Your task to perform on an android device: turn on bluetooth scan Image 0: 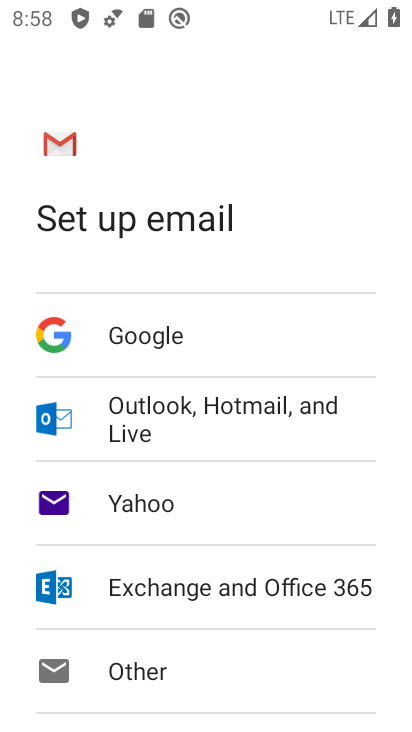
Step 0: press home button
Your task to perform on an android device: turn on bluetooth scan Image 1: 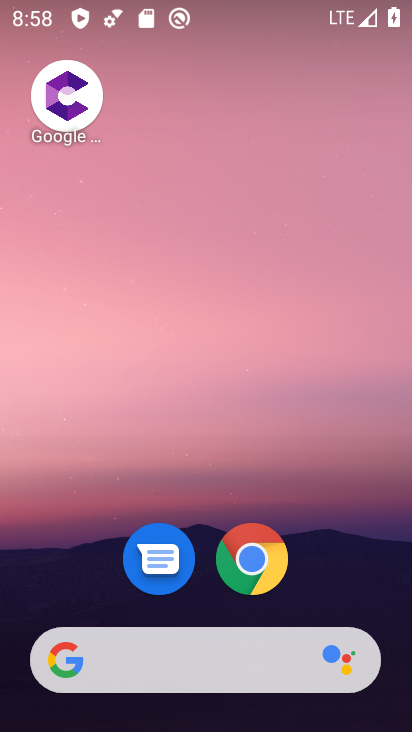
Step 1: drag from (383, 579) to (323, 93)
Your task to perform on an android device: turn on bluetooth scan Image 2: 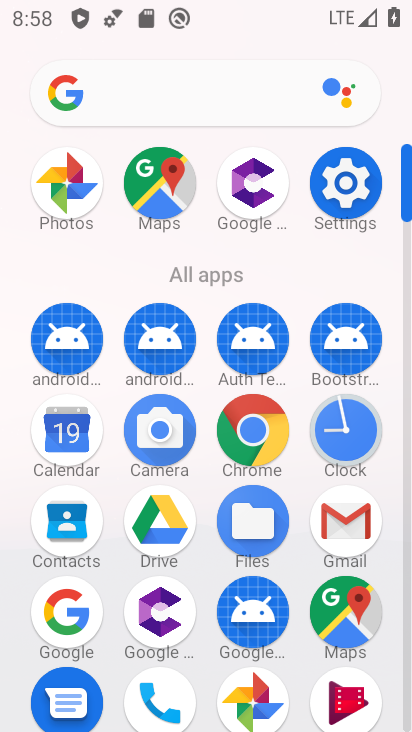
Step 2: click (345, 160)
Your task to perform on an android device: turn on bluetooth scan Image 3: 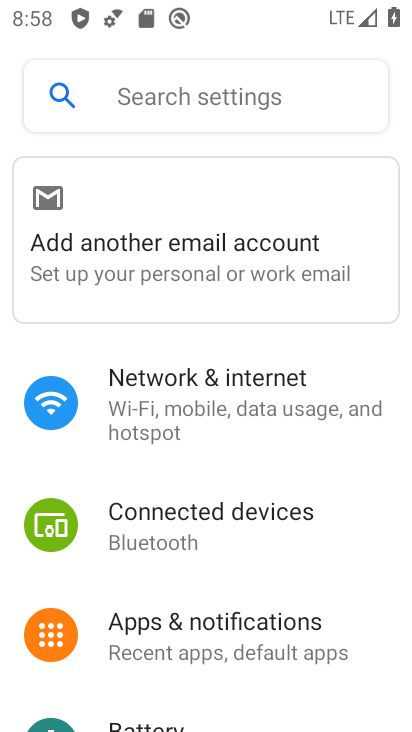
Step 3: drag from (344, 661) to (303, 327)
Your task to perform on an android device: turn on bluetooth scan Image 4: 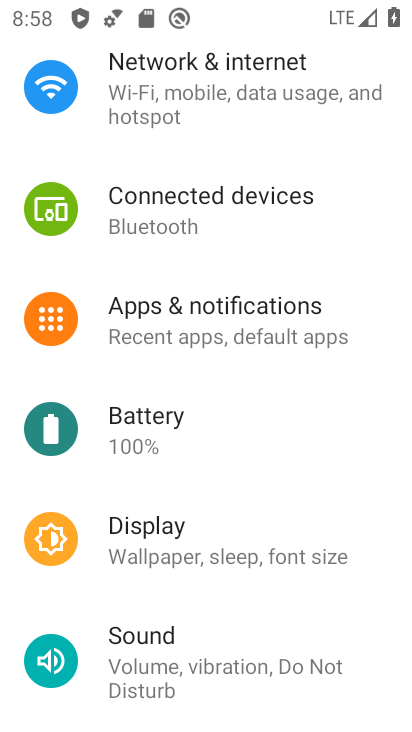
Step 4: drag from (306, 604) to (271, 241)
Your task to perform on an android device: turn on bluetooth scan Image 5: 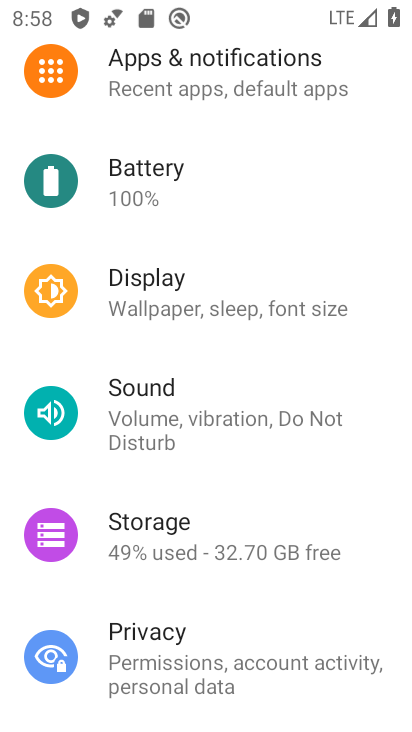
Step 5: drag from (311, 603) to (273, 253)
Your task to perform on an android device: turn on bluetooth scan Image 6: 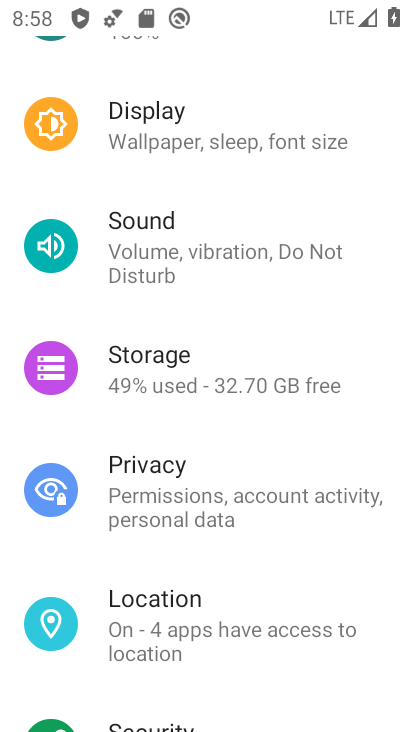
Step 6: click (348, 619)
Your task to perform on an android device: turn on bluetooth scan Image 7: 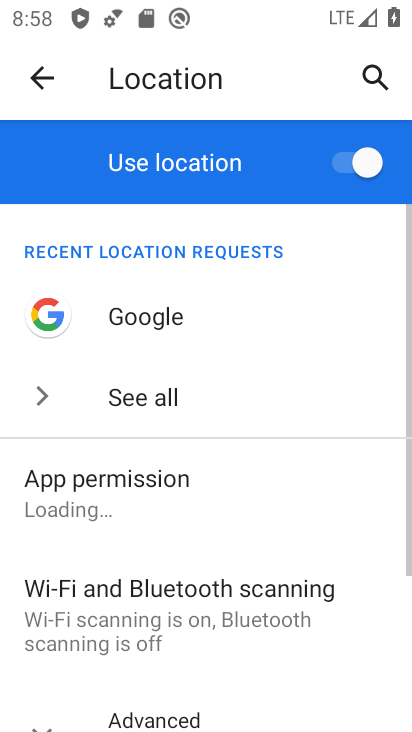
Step 7: click (314, 600)
Your task to perform on an android device: turn on bluetooth scan Image 8: 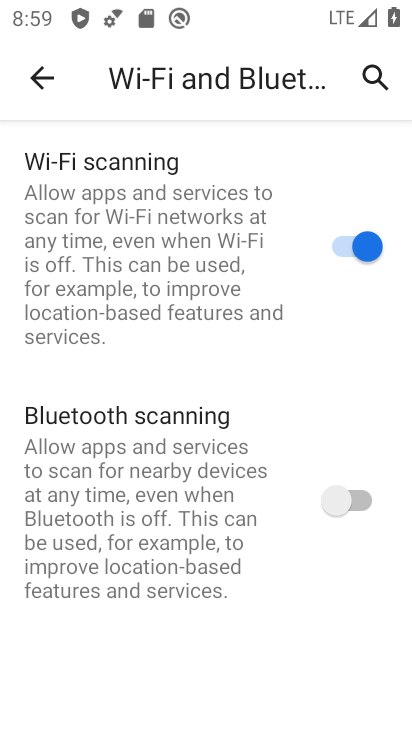
Step 8: drag from (314, 600) to (291, 426)
Your task to perform on an android device: turn on bluetooth scan Image 9: 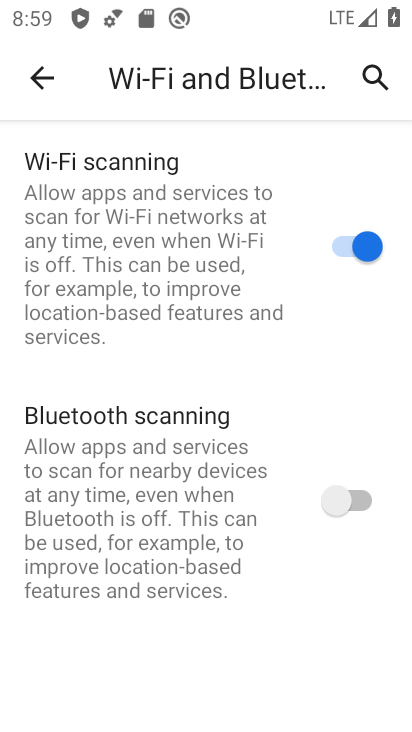
Step 9: click (349, 503)
Your task to perform on an android device: turn on bluetooth scan Image 10: 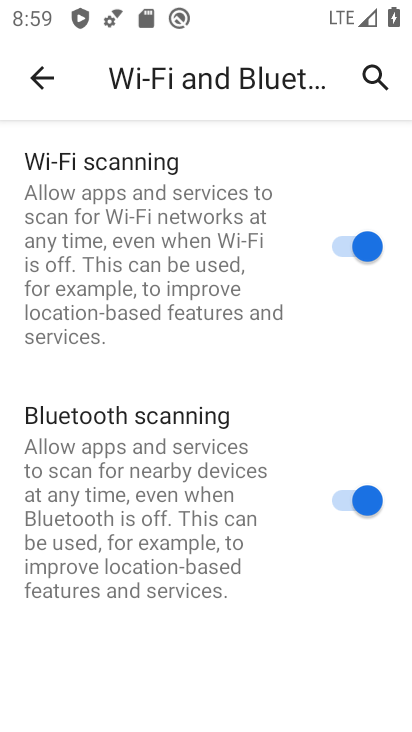
Step 10: task complete